Your task to perform on an android device: What's the weather today? Image 0: 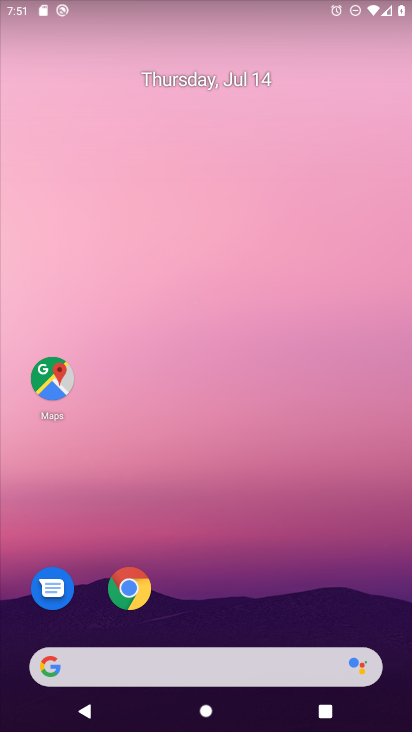
Step 0: click (85, 675)
Your task to perform on an android device: What's the weather today? Image 1: 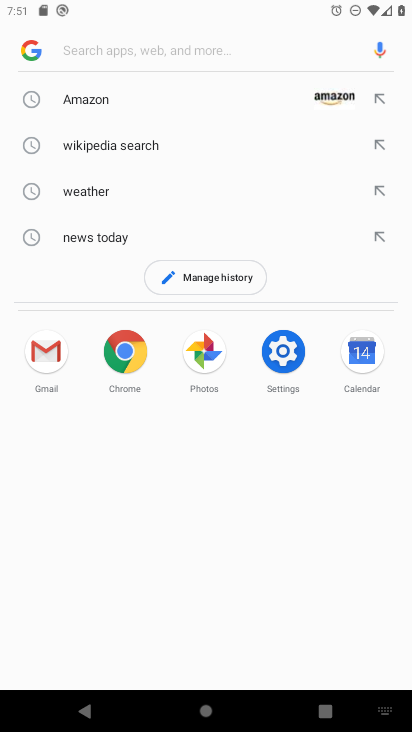
Step 1: type "What's the weather today?"
Your task to perform on an android device: What's the weather today? Image 2: 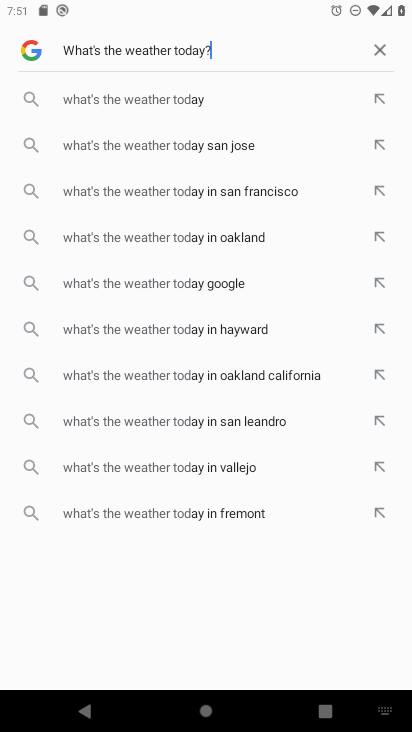
Step 2: type ""
Your task to perform on an android device: What's the weather today? Image 3: 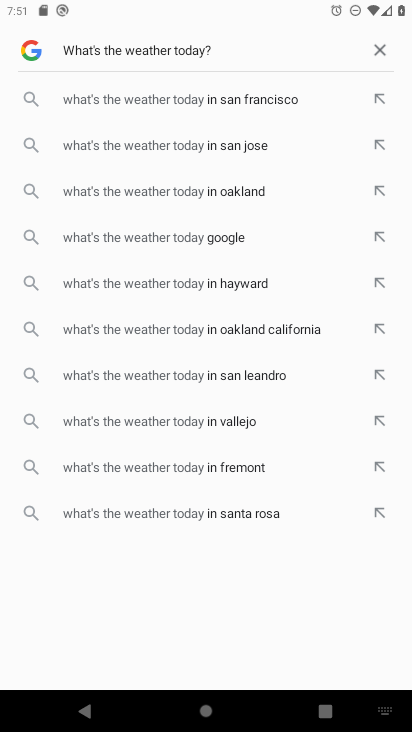
Step 3: type ""
Your task to perform on an android device: What's the weather today? Image 4: 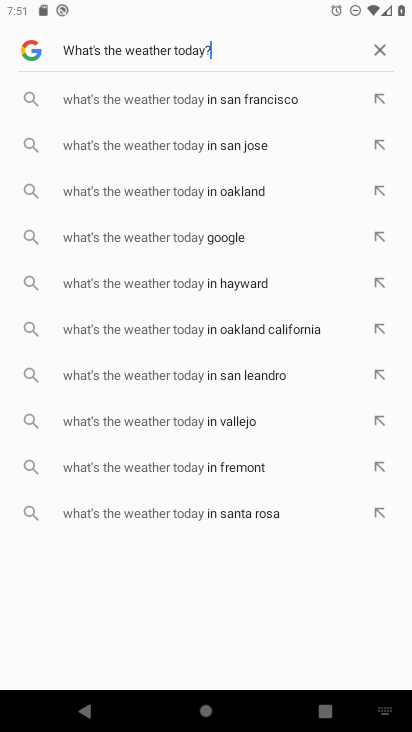
Step 4: type ""
Your task to perform on an android device: What's the weather today? Image 5: 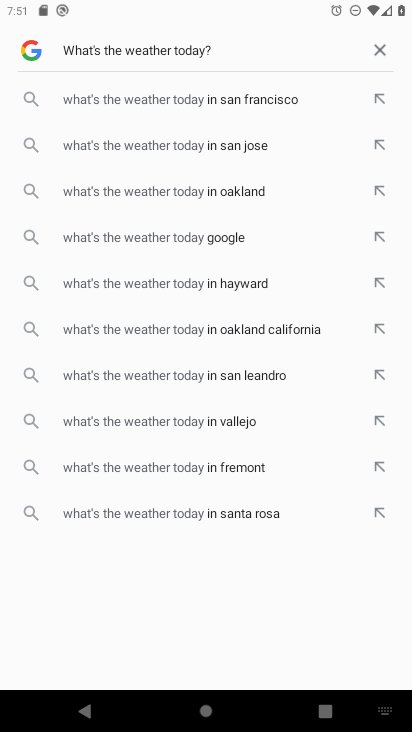
Step 5: task complete